Your task to perform on an android device: Open maps Image 0: 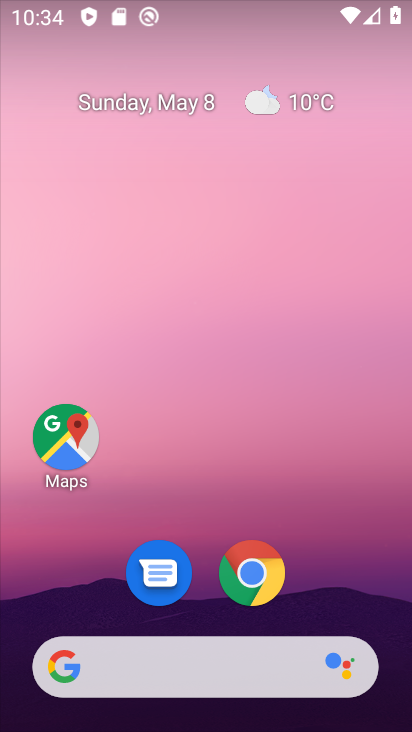
Step 0: click (74, 454)
Your task to perform on an android device: Open maps Image 1: 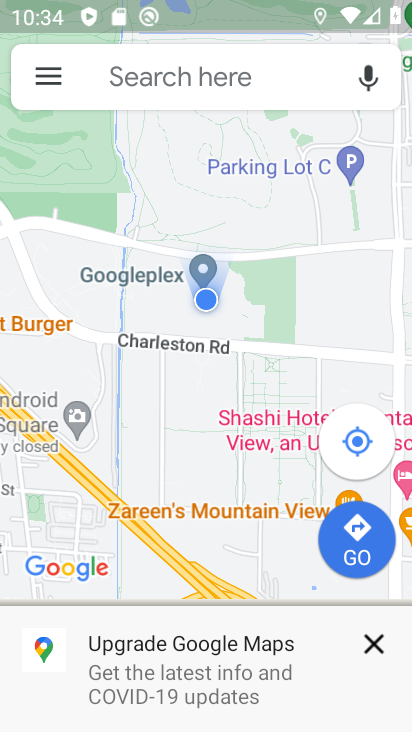
Step 1: task complete